Your task to perform on an android device: Open Yahoo.com Image 0: 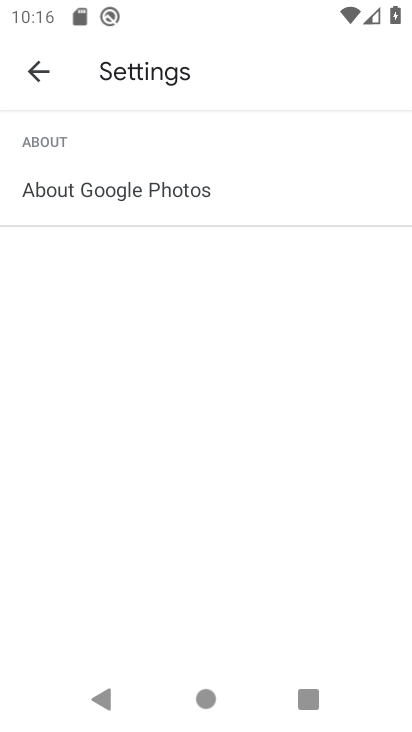
Step 0: press home button
Your task to perform on an android device: Open Yahoo.com Image 1: 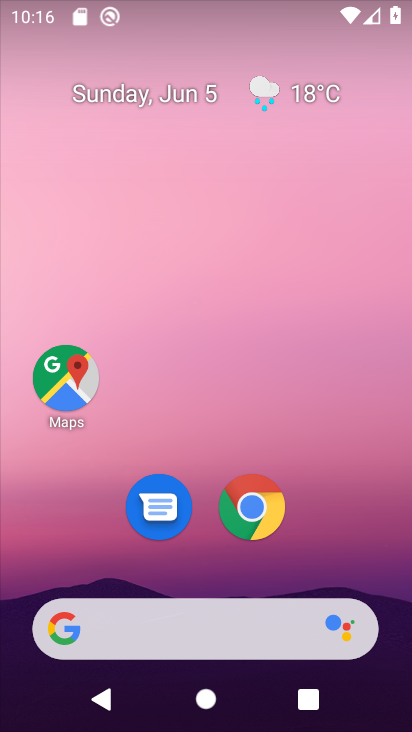
Step 1: click (257, 517)
Your task to perform on an android device: Open Yahoo.com Image 2: 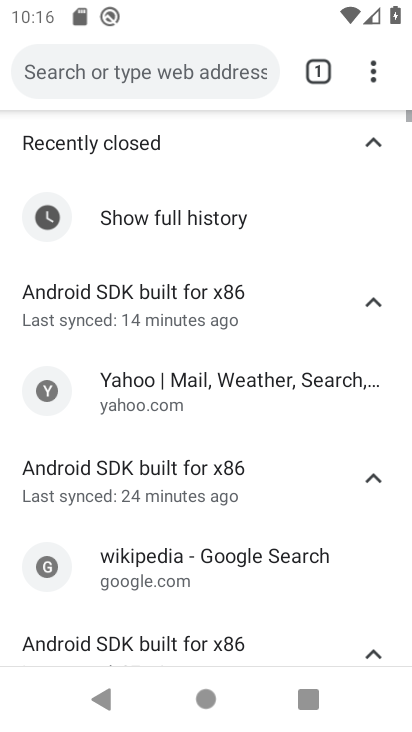
Step 2: click (123, 69)
Your task to perform on an android device: Open Yahoo.com Image 3: 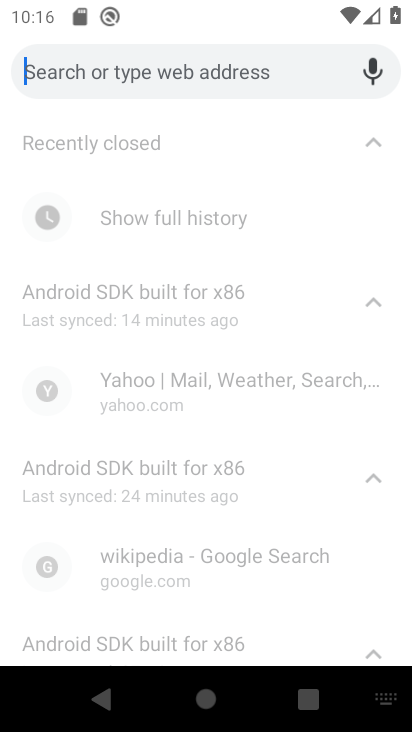
Step 3: type "yahoo.com"
Your task to perform on an android device: Open Yahoo.com Image 4: 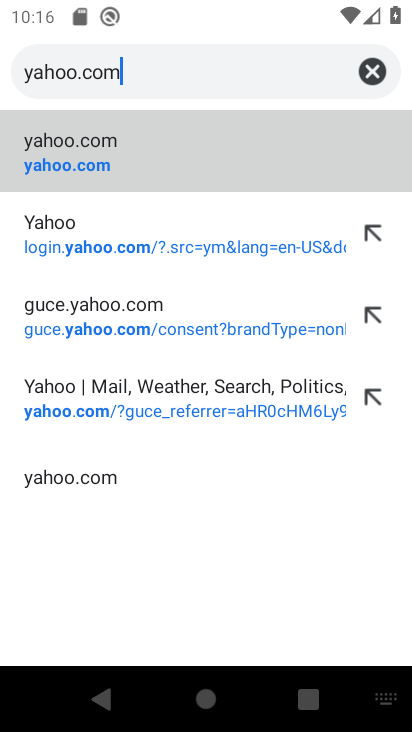
Step 4: click (125, 151)
Your task to perform on an android device: Open Yahoo.com Image 5: 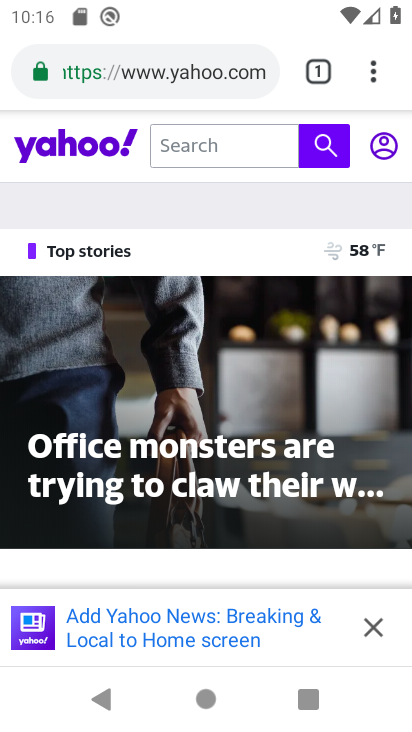
Step 5: task complete